Your task to perform on an android device: manage bookmarks in the chrome app Image 0: 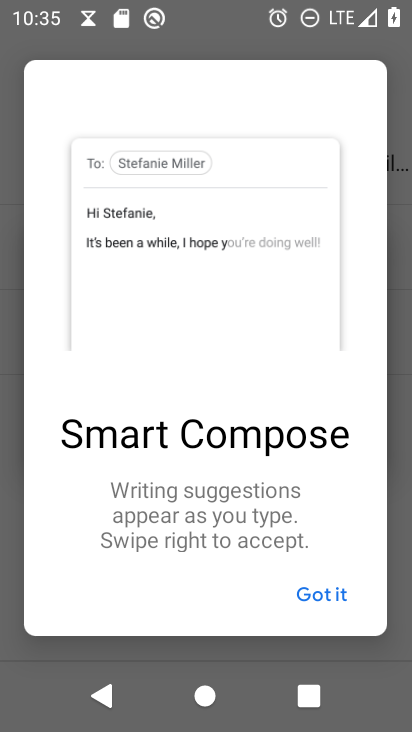
Step 0: press home button
Your task to perform on an android device: manage bookmarks in the chrome app Image 1: 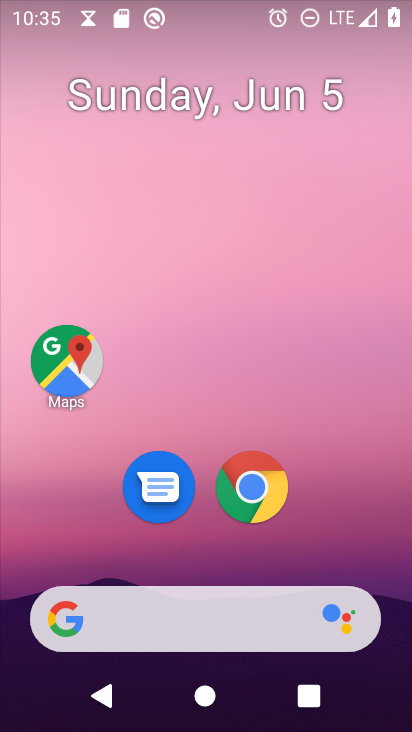
Step 1: click (262, 470)
Your task to perform on an android device: manage bookmarks in the chrome app Image 2: 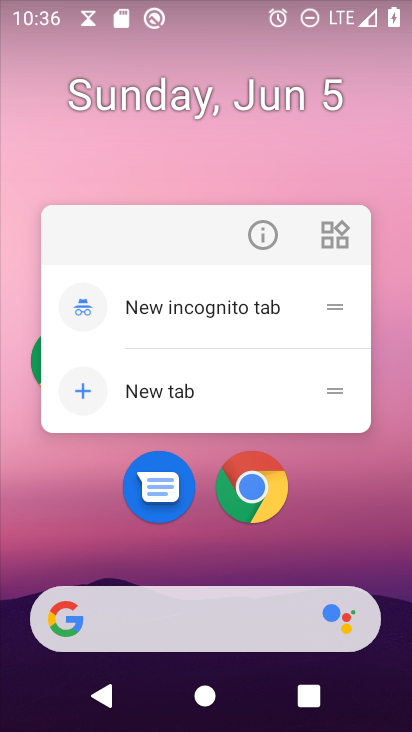
Step 2: click (238, 478)
Your task to perform on an android device: manage bookmarks in the chrome app Image 3: 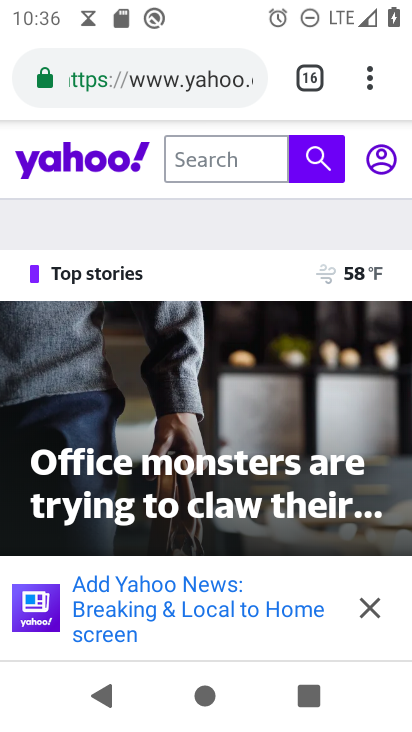
Step 3: click (372, 63)
Your task to perform on an android device: manage bookmarks in the chrome app Image 4: 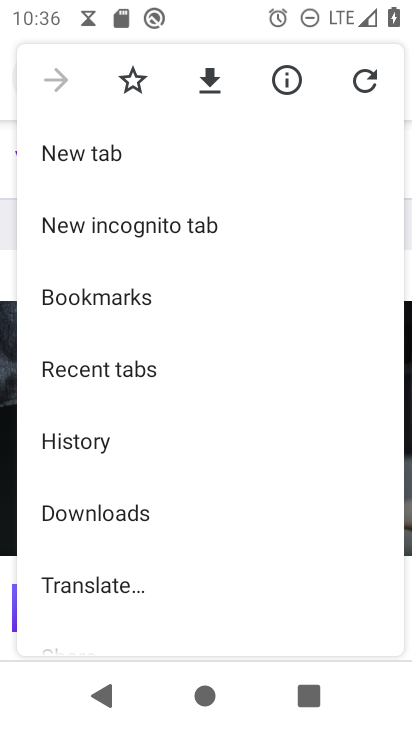
Step 4: click (136, 294)
Your task to perform on an android device: manage bookmarks in the chrome app Image 5: 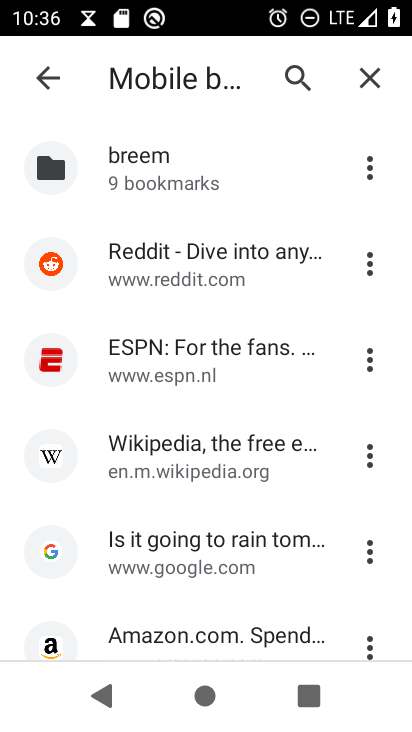
Step 5: task complete